Your task to perform on an android device: open the mobile data screen to see how much data has been used Image 0: 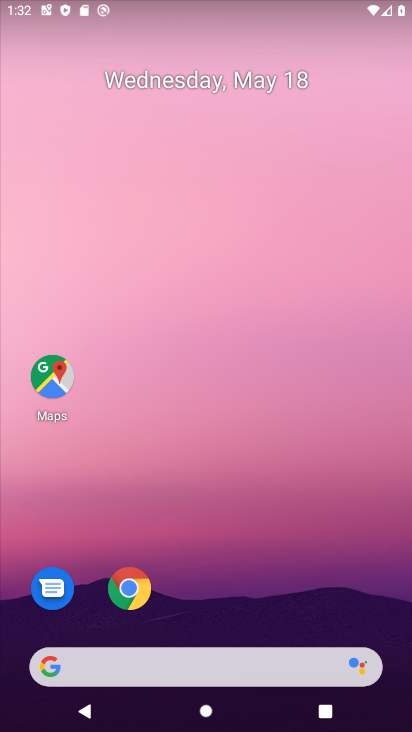
Step 0: drag from (299, 611) to (316, 199)
Your task to perform on an android device: open the mobile data screen to see how much data has been used Image 1: 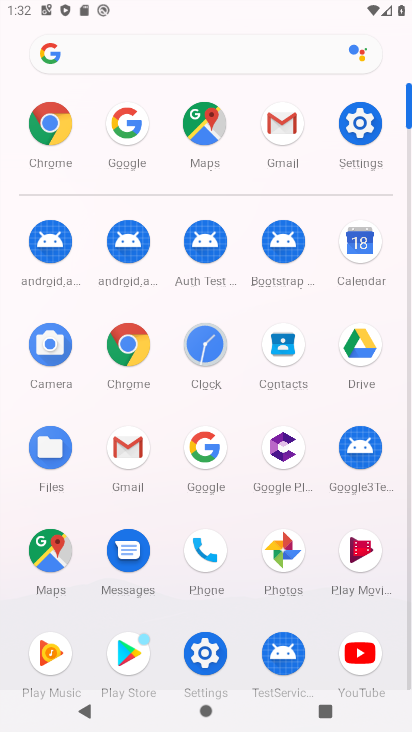
Step 1: click (353, 138)
Your task to perform on an android device: open the mobile data screen to see how much data has been used Image 2: 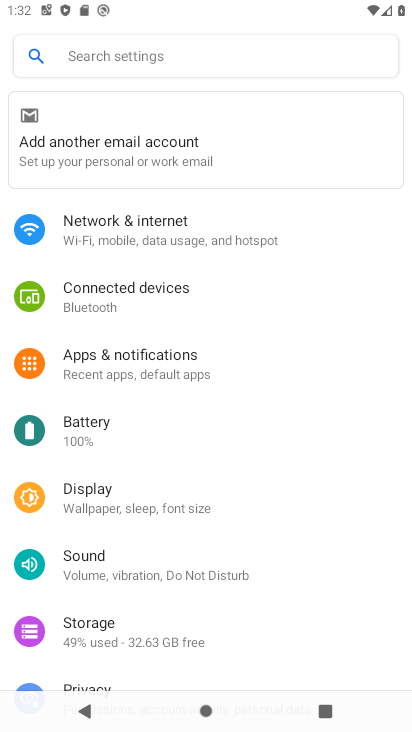
Step 2: drag from (319, 592) to (329, 353)
Your task to perform on an android device: open the mobile data screen to see how much data has been used Image 3: 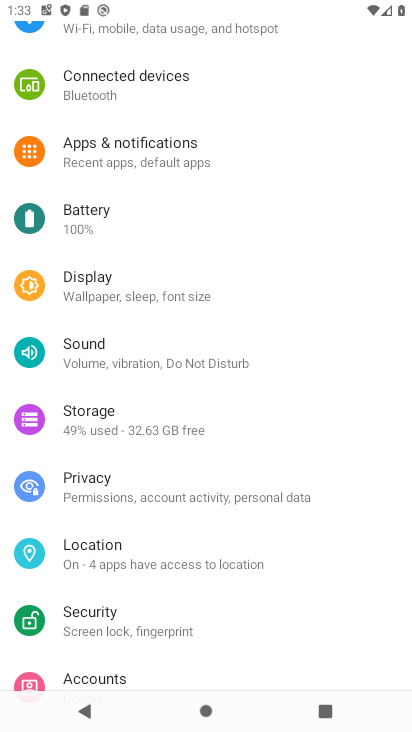
Step 3: drag from (325, 630) to (336, 480)
Your task to perform on an android device: open the mobile data screen to see how much data has been used Image 4: 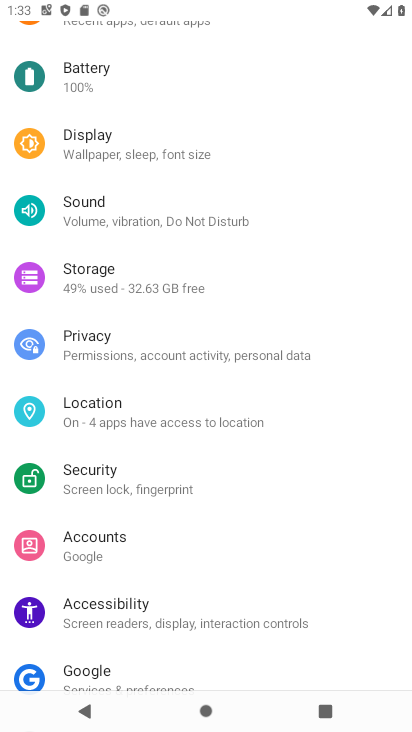
Step 4: drag from (328, 655) to (318, 444)
Your task to perform on an android device: open the mobile data screen to see how much data has been used Image 5: 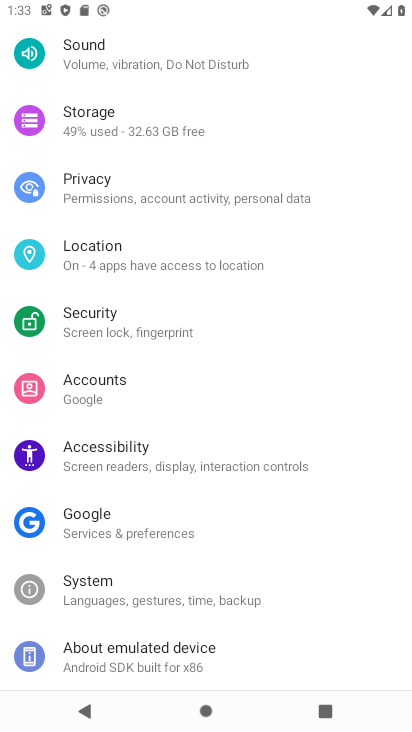
Step 5: drag from (328, 571) to (345, 470)
Your task to perform on an android device: open the mobile data screen to see how much data has been used Image 6: 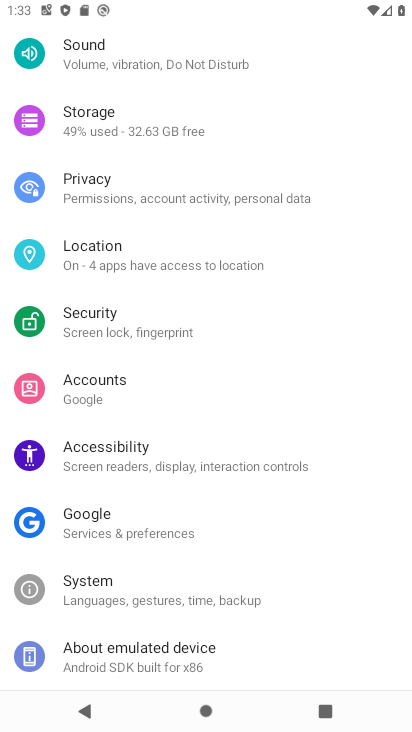
Step 6: drag from (328, 578) to (339, 422)
Your task to perform on an android device: open the mobile data screen to see how much data has been used Image 7: 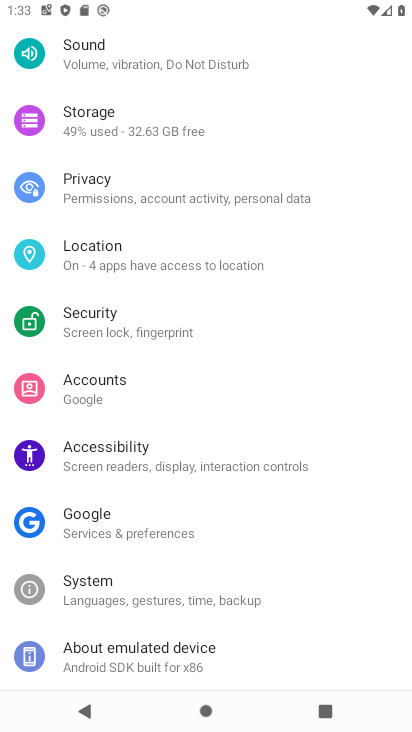
Step 7: drag from (340, 303) to (332, 501)
Your task to perform on an android device: open the mobile data screen to see how much data has been used Image 8: 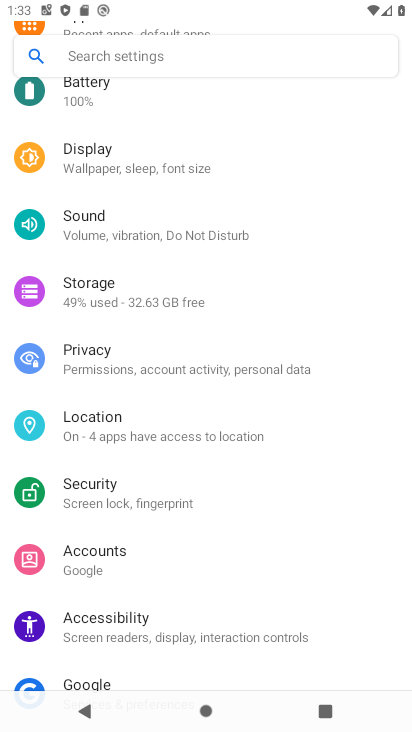
Step 8: drag from (342, 415) to (343, 530)
Your task to perform on an android device: open the mobile data screen to see how much data has been used Image 9: 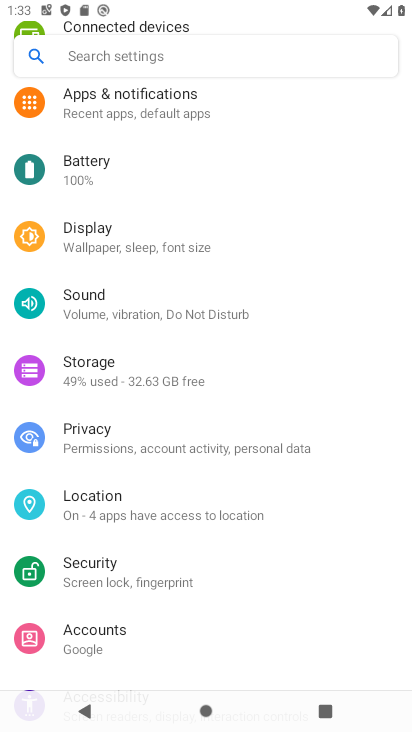
Step 9: drag from (346, 281) to (336, 534)
Your task to perform on an android device: open the mobile data screen to see how much data has been used Image 10: 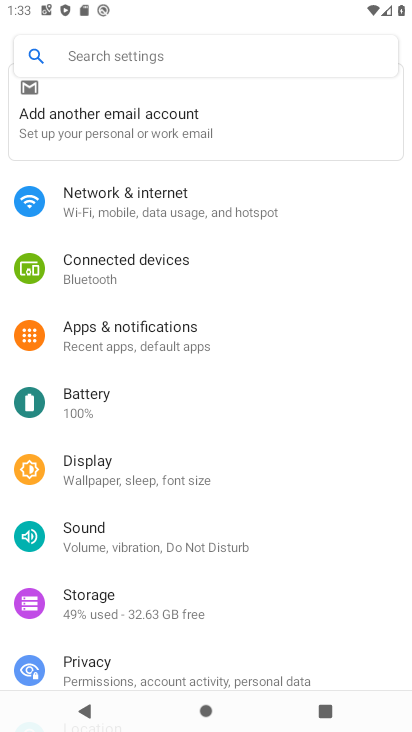
Step 10: drag from (318, 273) to (305, 489)
Your task to perform on an android device: open the mobile data screen to see how much data has been used Image 11: 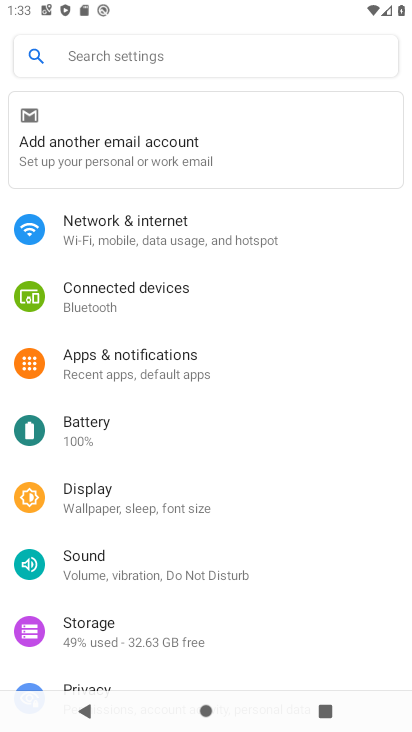
Step 11: drag from (315, 304) to (311, 490)
Your task to perform on an android device: open the mobile data screen to see how much data has been used Image 12: 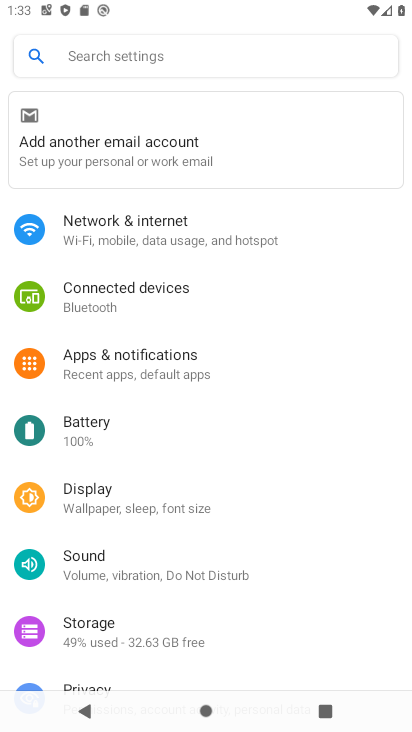
Step 12: click (169, 222)
Your task to perform on an android device: open the mobile data screen to see how much data has been used Image 13: 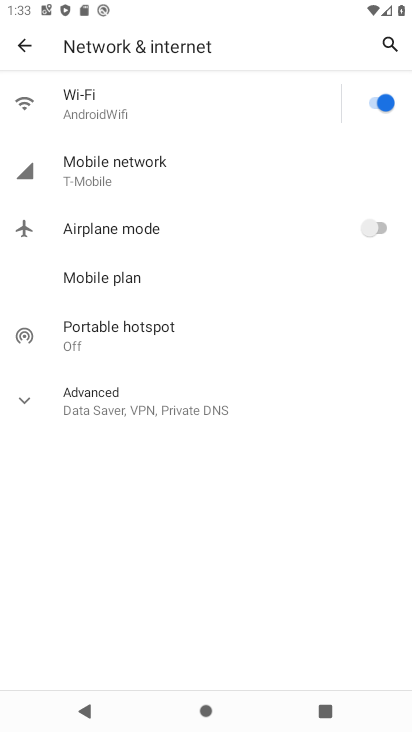
Step 13: click (132, 158)
Your task to perform on an android device: open the mobile data screen to see how much data has been used Image 14: 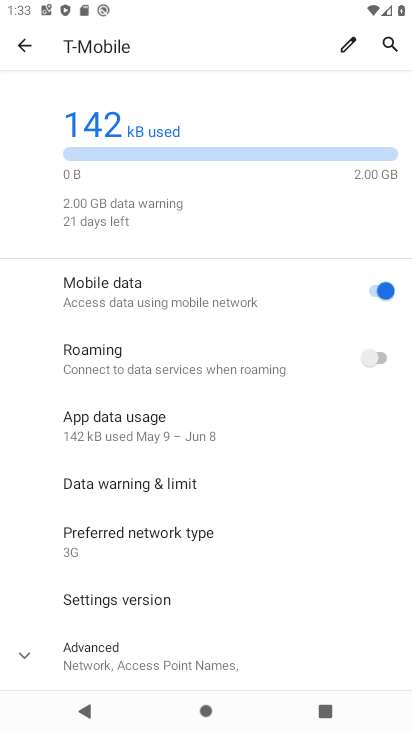
Step 14: drag from (285, 601) to (284, 365)
Your task to perform on an android device: open the mobile data screen to see how much data has been used Image 15: 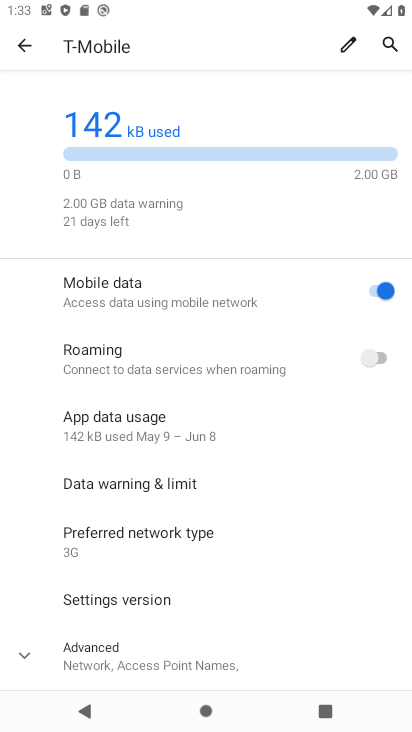
Step 15: click (98, 419)
Your task to perform on an android device: open the mobile data screen to see how much data has been used Image 16: 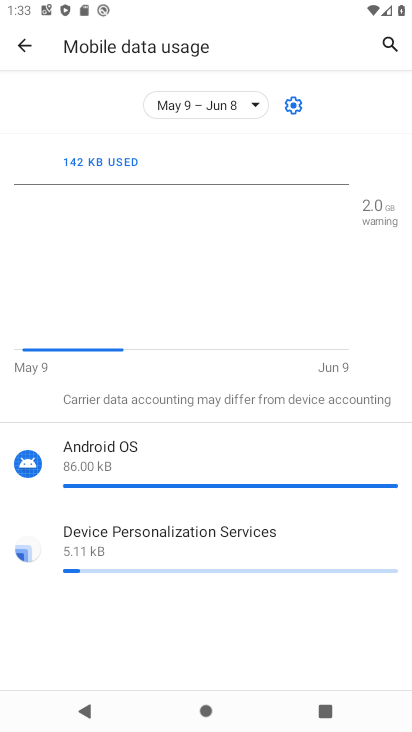
Step 16: task complete